Your task to perform on an android device: turn smart compose on in the gmail app Image 0: 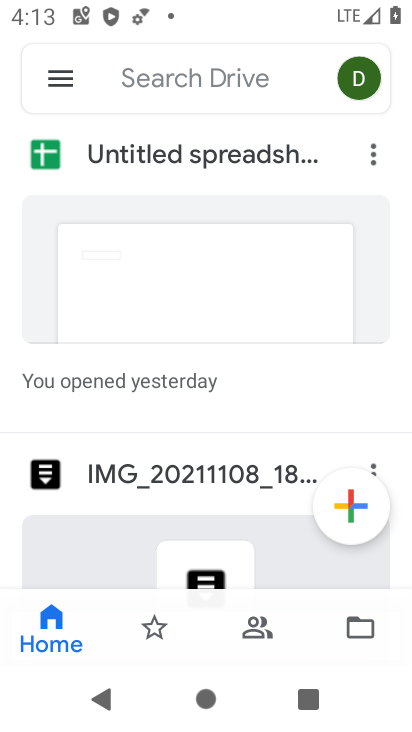
Step 0: press home button
Your task to perform on an android device: turn smart compose on in the gmail app Image 1: 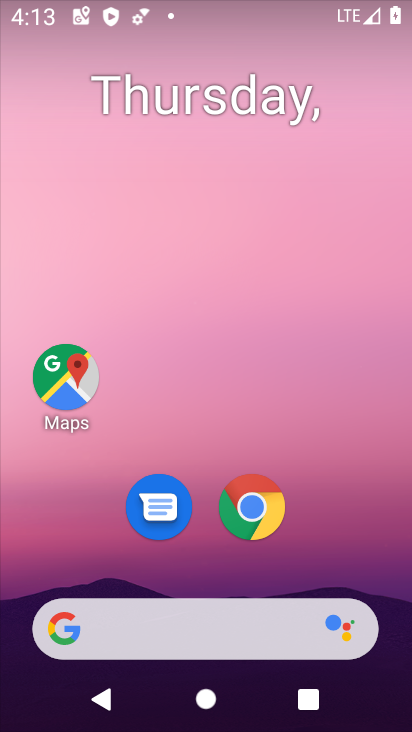
Step 1: drag from (368, 542) to (337, 219)
Your task to perform on an android device: turn smart compose on in the gmail app Image 2: 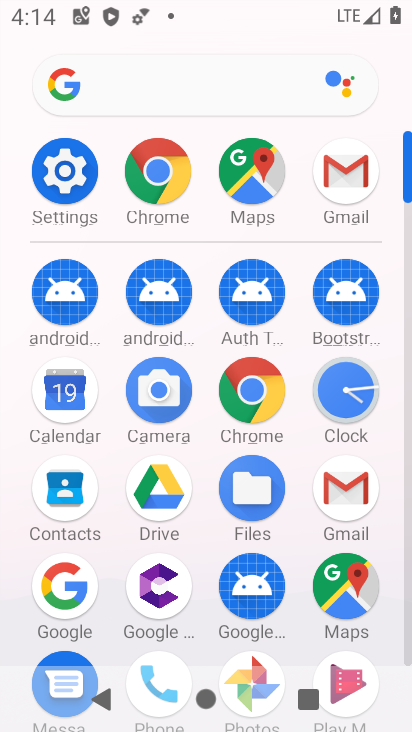
Step 2: click (342, 171)
Your task to perform on an android device: turn smart compose on in the gmail app Image 3: 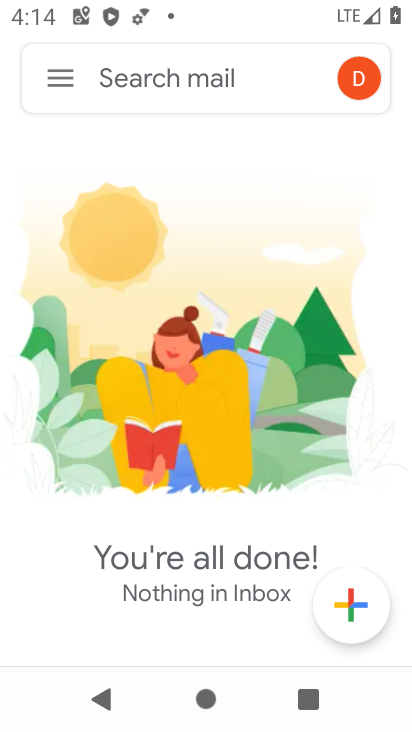
Step 3: click (60, 93)
Your task to perform on an android device: turn smart compose on in the gmail app Image 4: 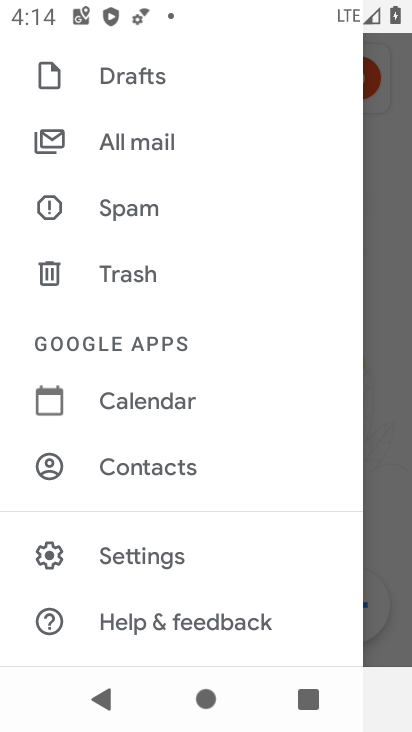
Step 4: click (167, 567)
Your task to perform on an android device: turn smart compose on in the gmail app Image 5: 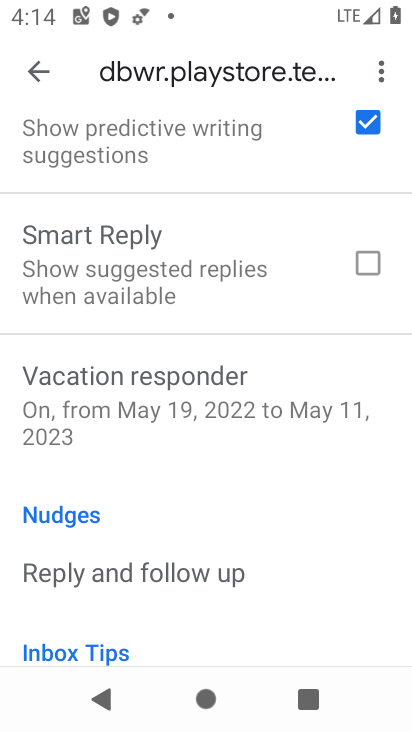
Step 5: task complete